Your task to perform on an android device: check out phone information Image 0: 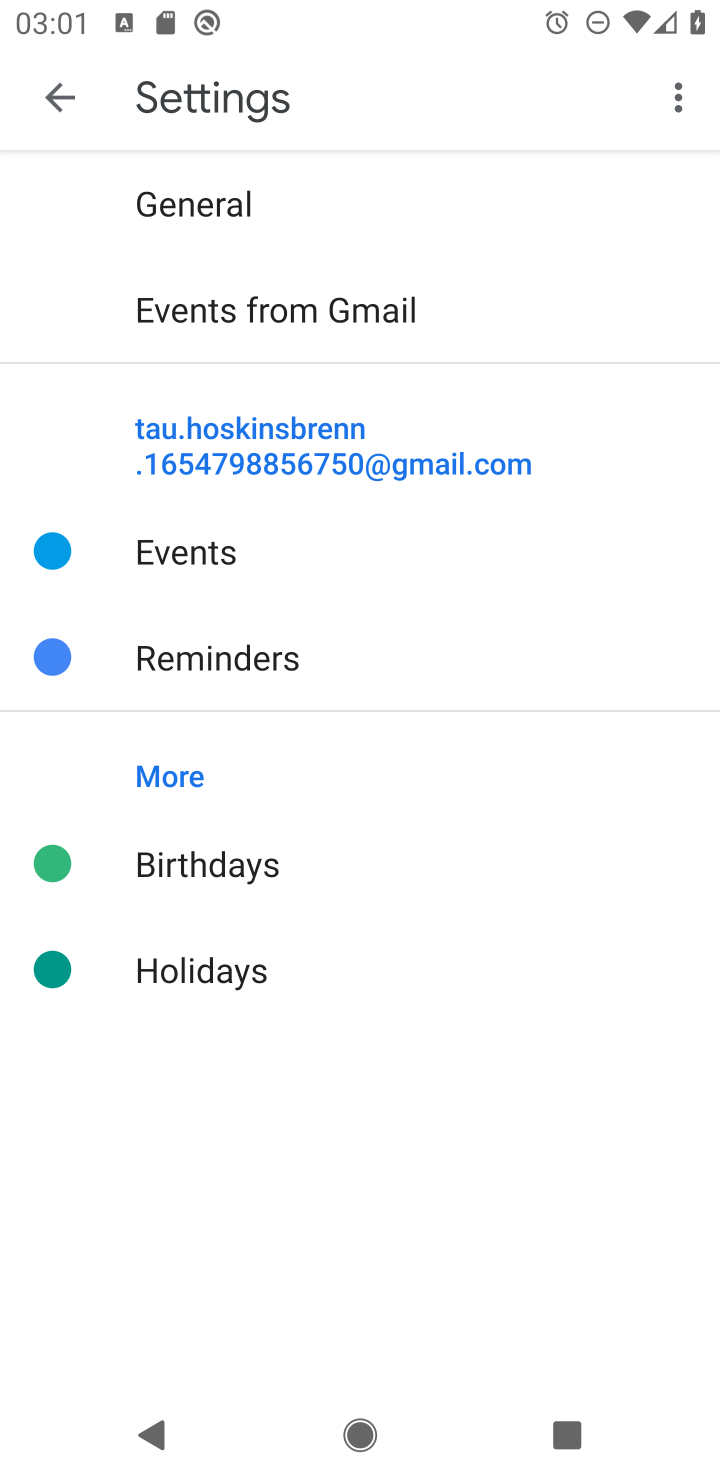
Step 0: press home button
Your task to perform on an android device: check out phone information Image 1: 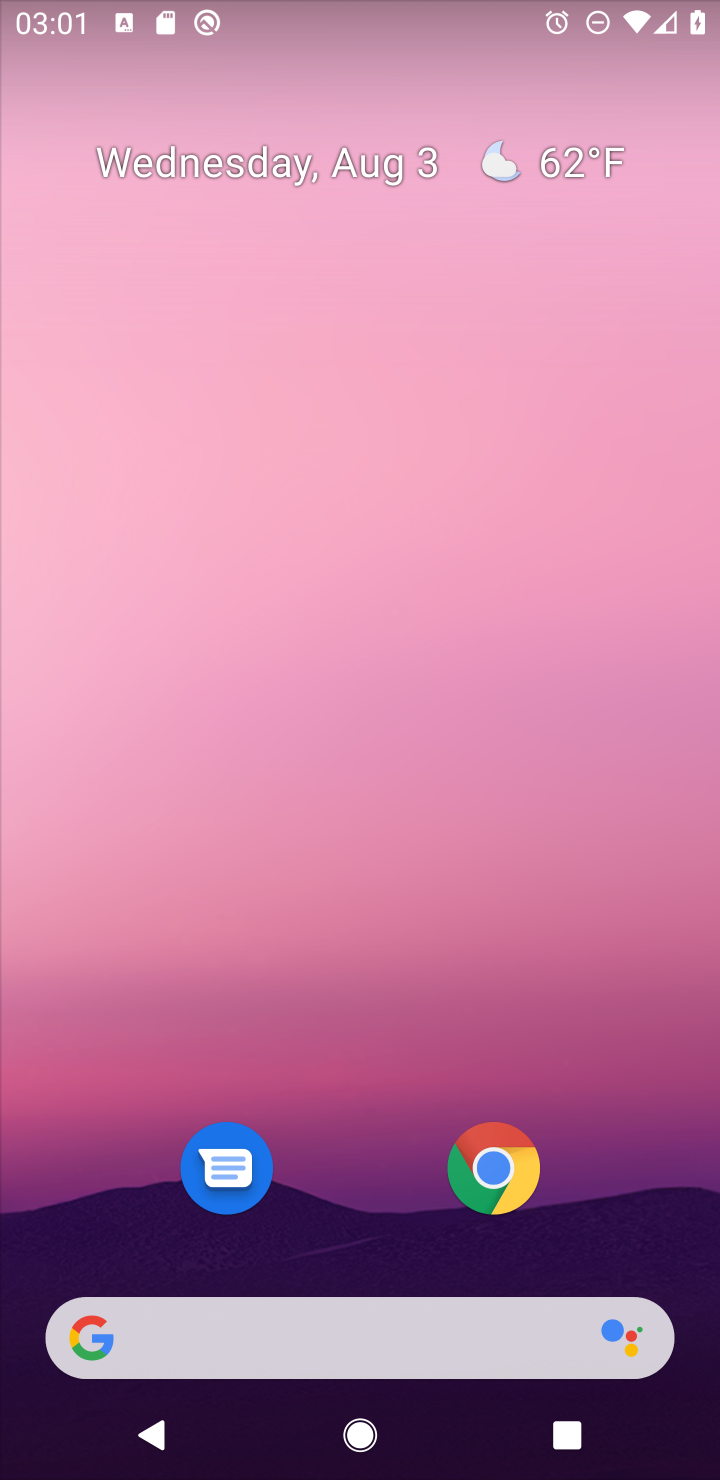
Step 1: drag from (657, 1224) to (608, 357)
Your task to perform on an android device: check out phone information Image 2: 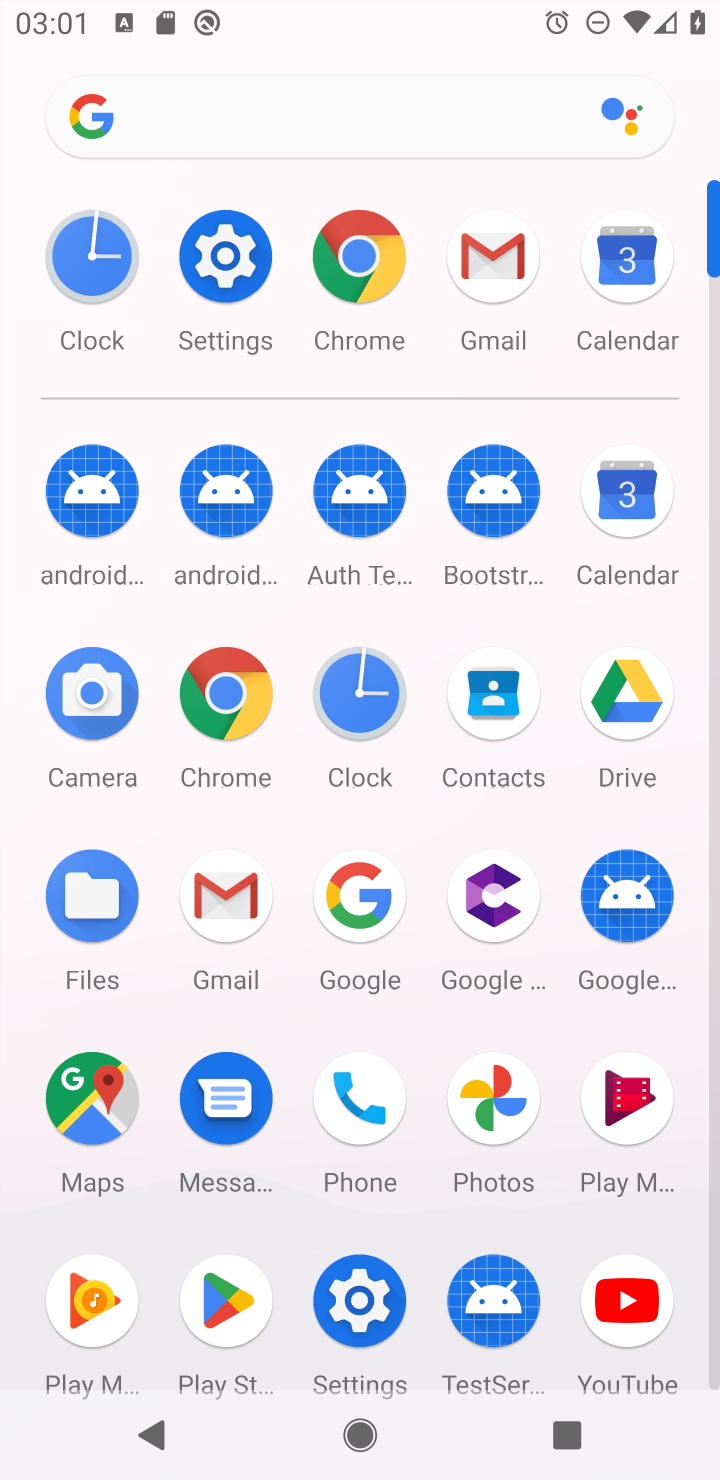
Step 2: click (358, 1303)
Your task to perform on an android device: check out phone information Image 3: 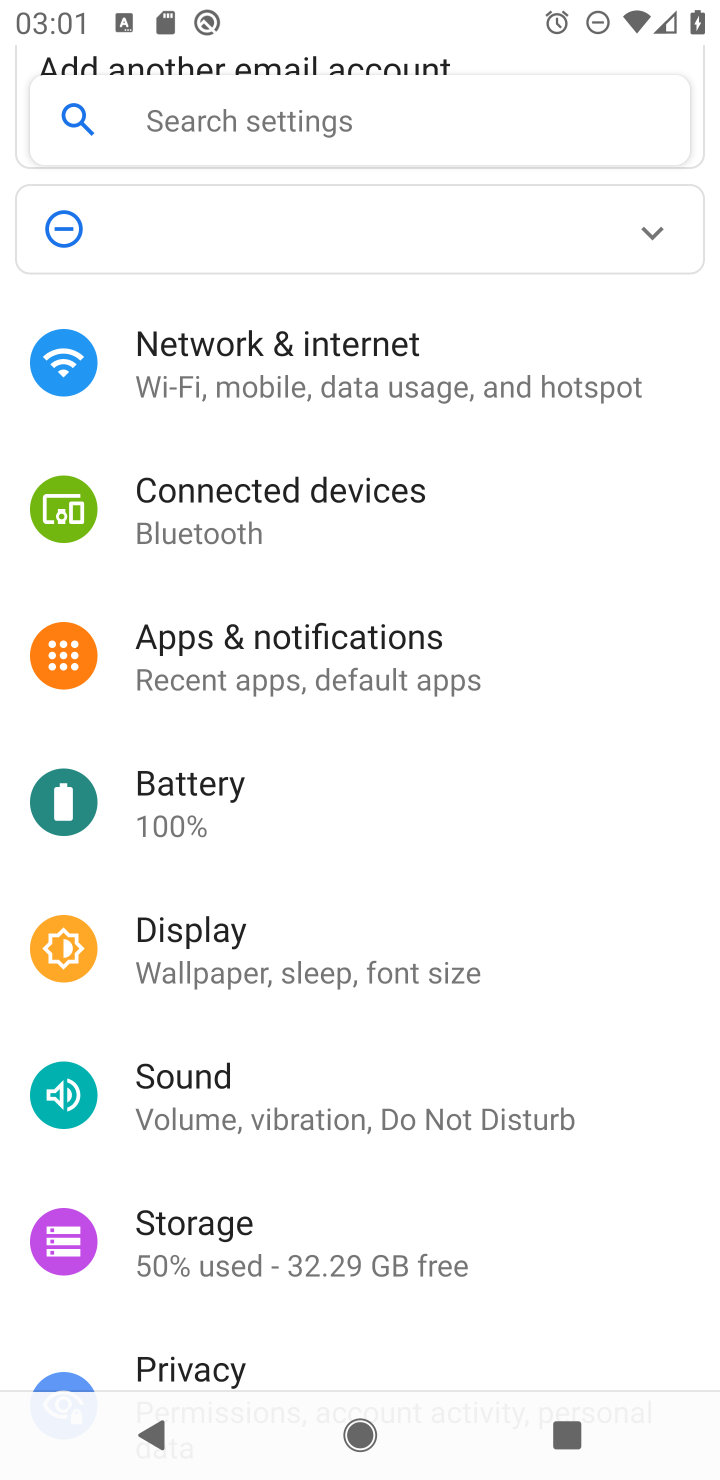
Step 3: drag from (627, 1318) to (604, 475)
Your task to perform on an android device: check out phone information Image 4: 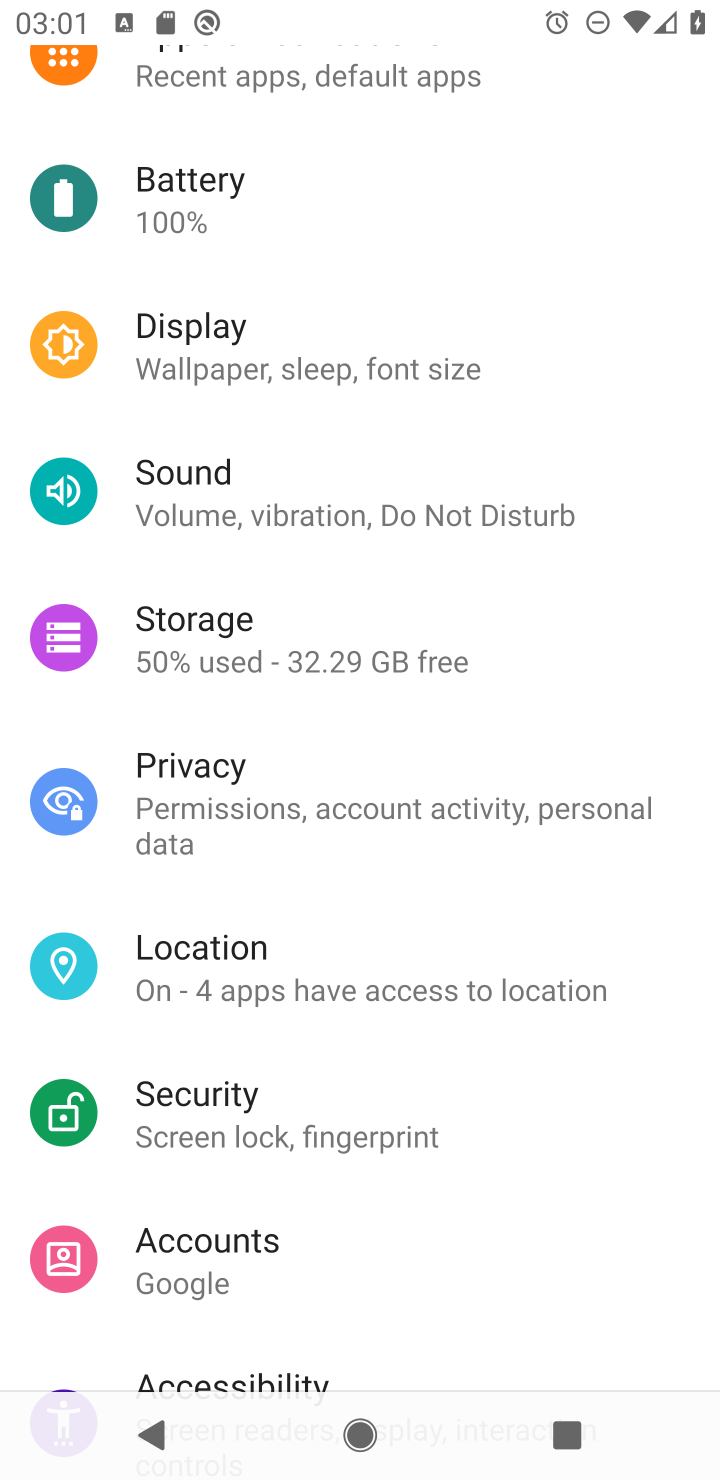
Step 4: drag from (578, 1316) to (613, 431)
Your task to perform on an android device: check out phone information Image 5: 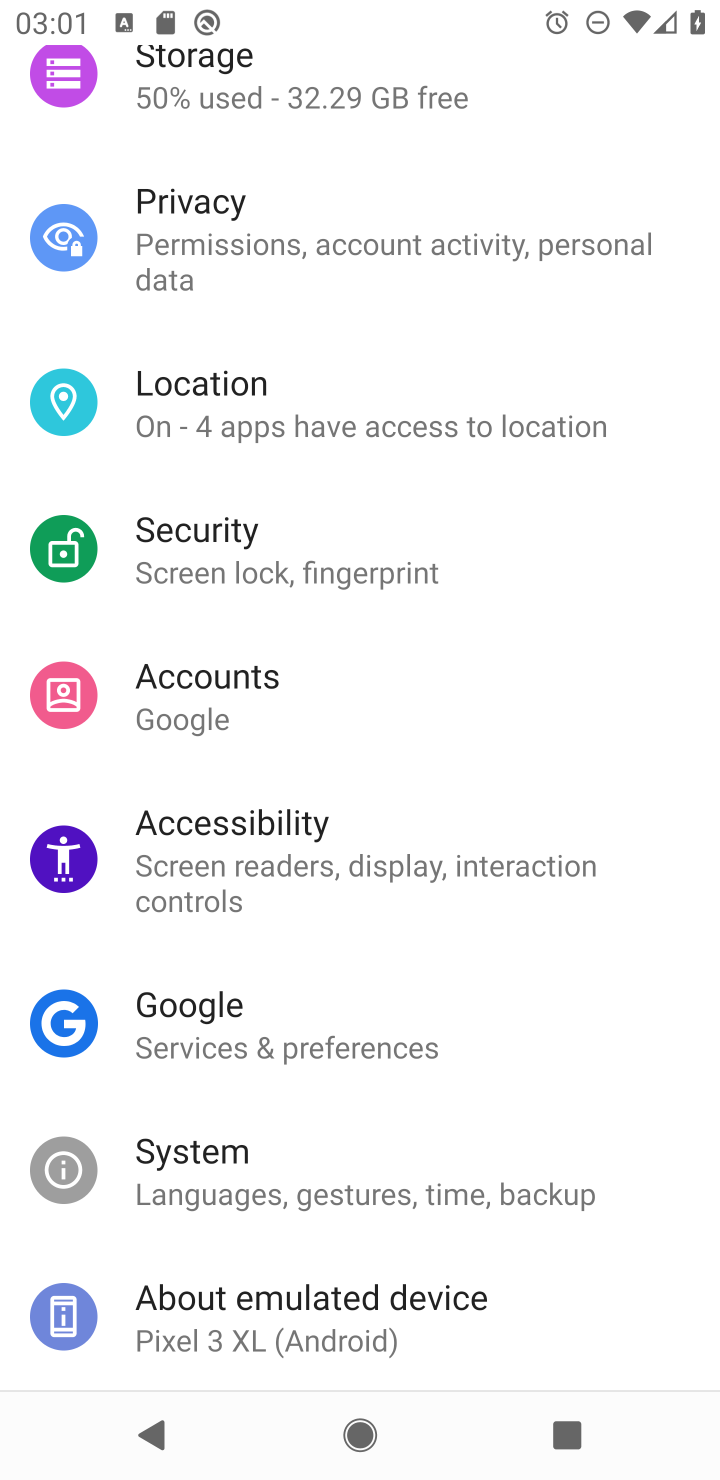
Step 5: click (226, 1300)
Your task to perform on an android device: check out phone information Image 6: 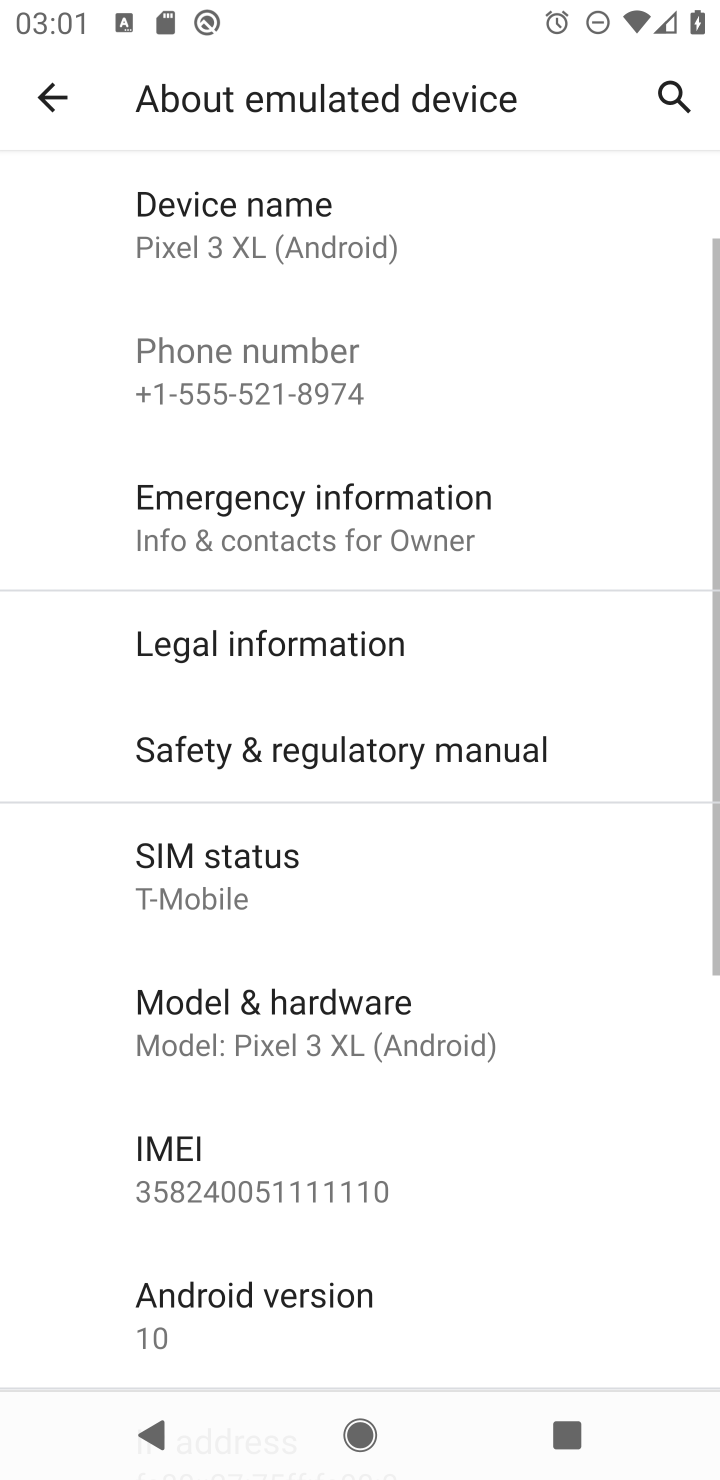
Step 6: task complete